Your task to perform on an android device: Open calendar and show me the third week of next month Image 0: 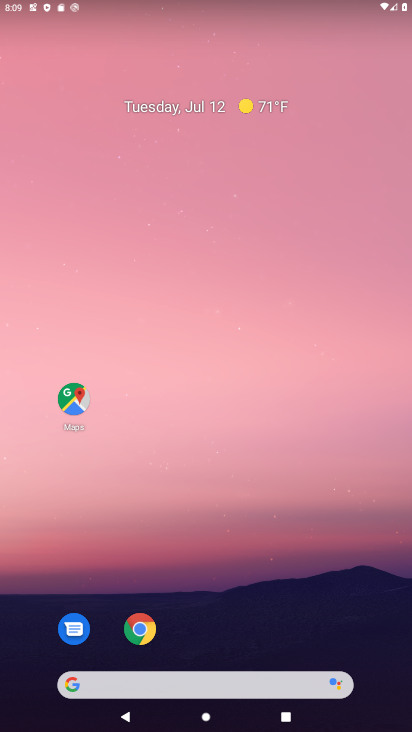
Step 0: drag from (384, 665) to (333, 166)
Your task to perform on an android device: Open calendar and show me the third week of next month Image 1: 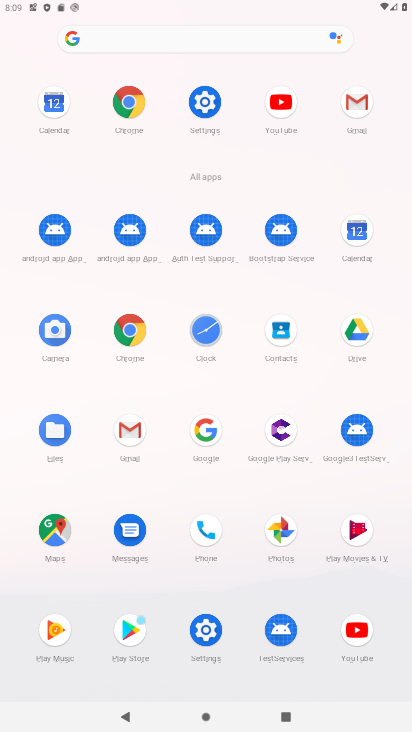
Step 1: click (347, 229)
Your task to perform on an android device: Open calendar and show me the third week of next month Image 2: 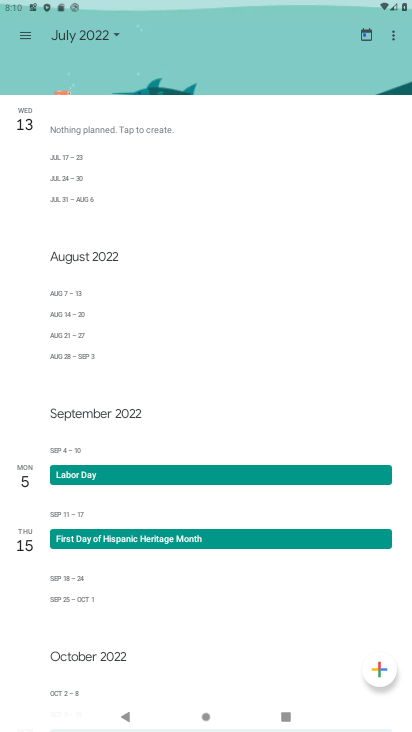
Step 2: click (115, 34)
Your task to perform on an android device: Open calendar and show me the third week of next month Image 3: 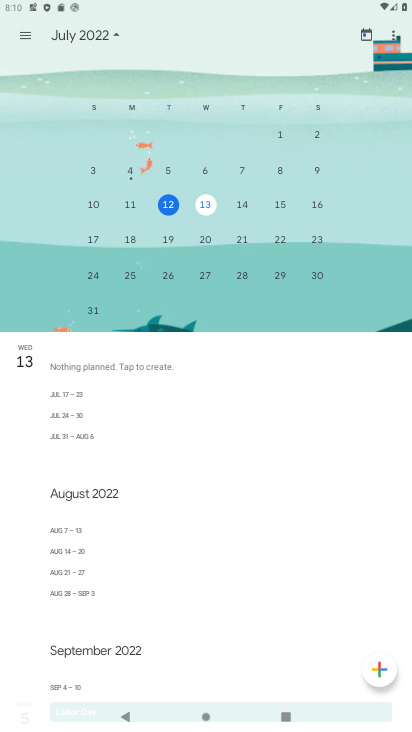
Step 3: drag from (402, 227) to (29, 217)
Your task to perform on an android device: Open calendar and show me the third week of next month Image 4: 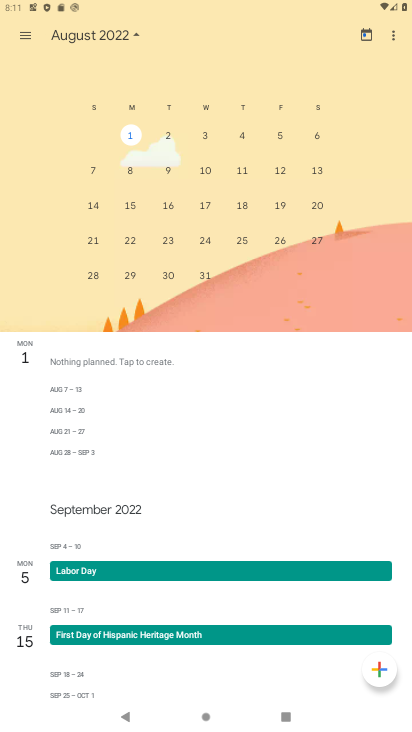
Step 4: click (205, 198)
Your task to perform on an android device: Open calendar and show me the third week of next month Image 5: 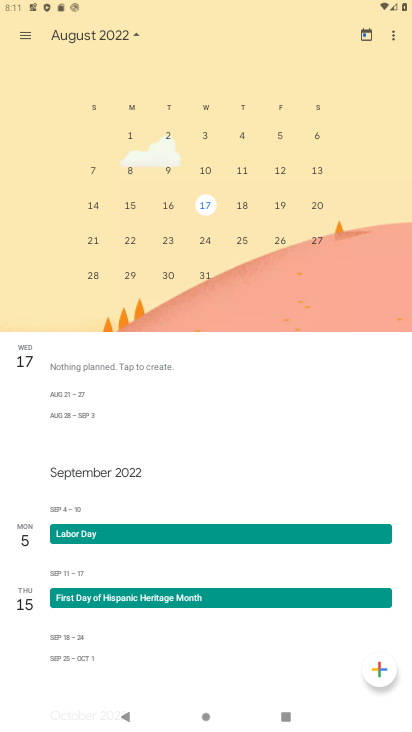
Step 5: click (18, 36)
Your task to perform on an android device: Open calendar and show me the third week of next month Image 6: 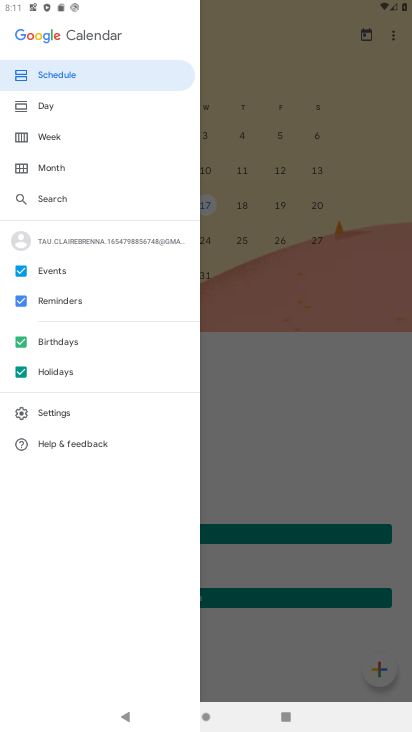
Step 6: click (48, 134)
Your task to perform on an android device: Open calendar and show me the third week of next month Image 7: 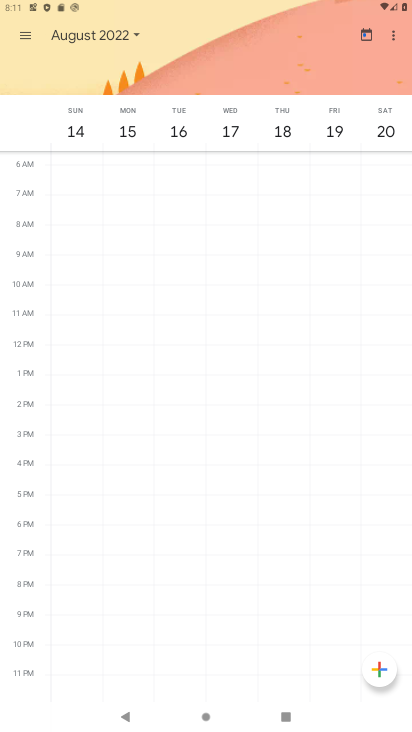
Step 7: task complete